Your task to perform on an android device: Open Google Maps Image 0: 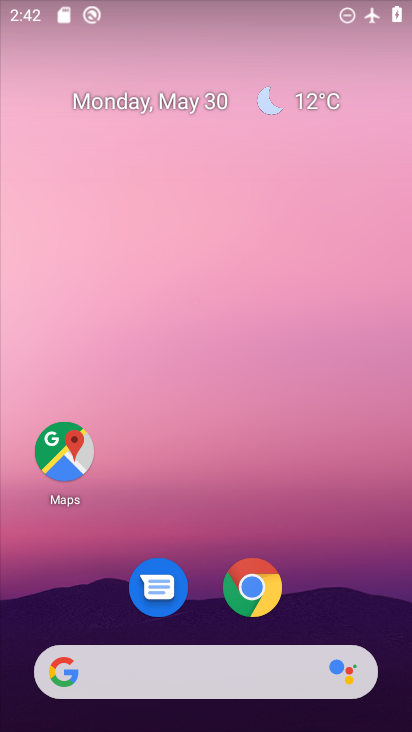
Step 0: click (47, 437)
Your task to perform on an android device: Open Google Maps Image 1: 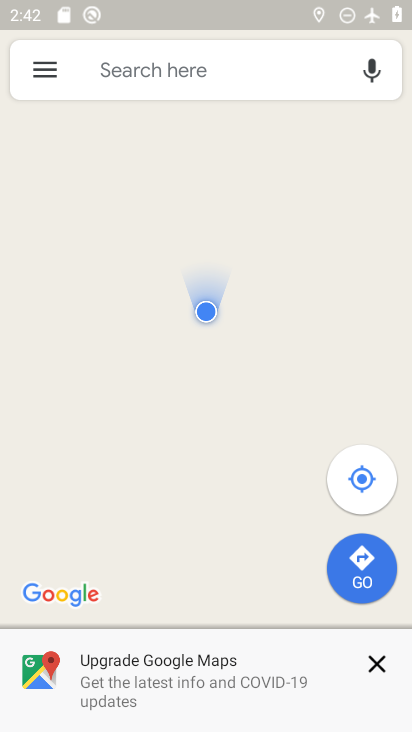
Step 1: task complete